Your task to perform on an android device: Go to Yahoo.com Image 0: 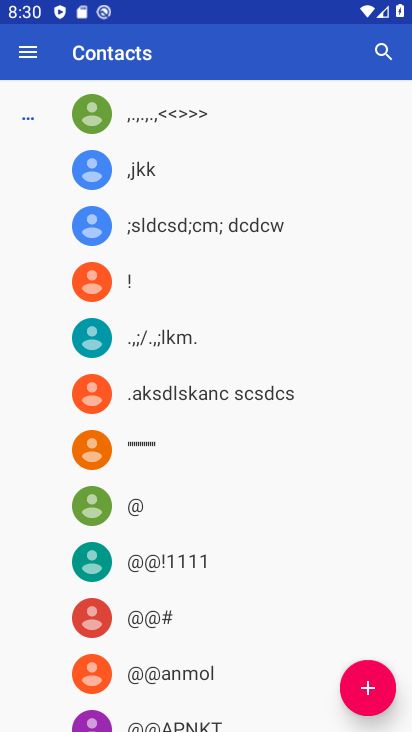
Step 0: press home button
Your task to perform on an android device: Go to Yahoo.com Image 1: 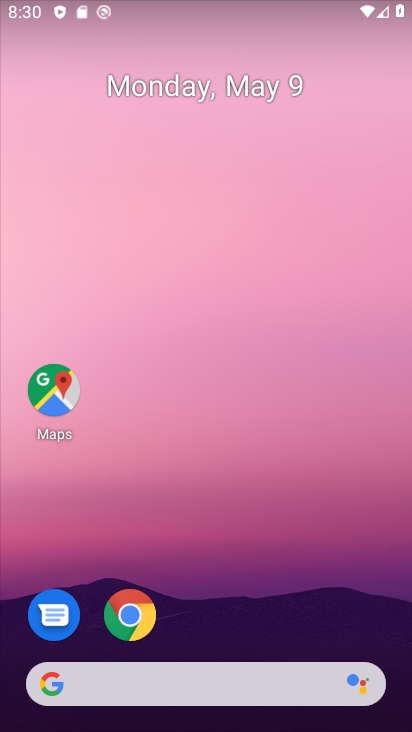
Step 1: click (150, 613)
Your task to perform on an android device: Go to Yahoo.com Image 2: 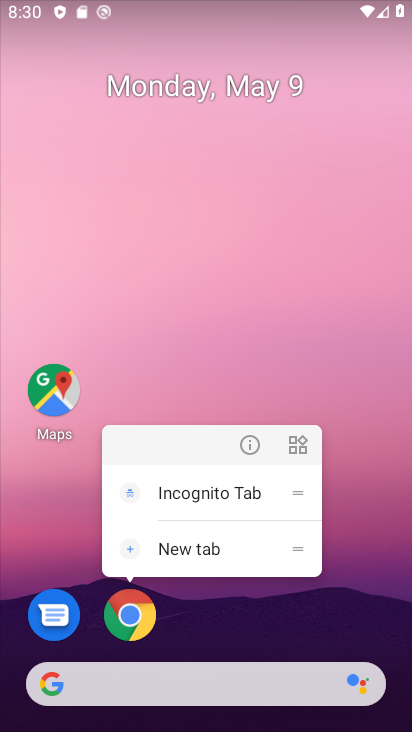
Step 2: click (129, 623)
Your task to perform on an android device: Go to Yahoo.com Image 3: 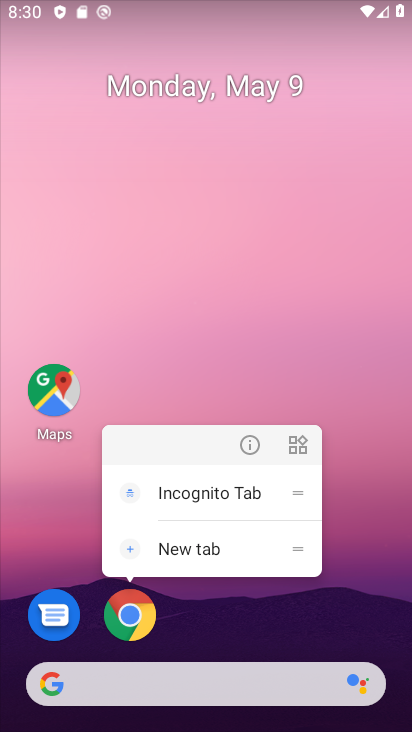
Step 3: click (119, 612)
Your task to perform on an android device: Go to Yahoo.com Image 4: 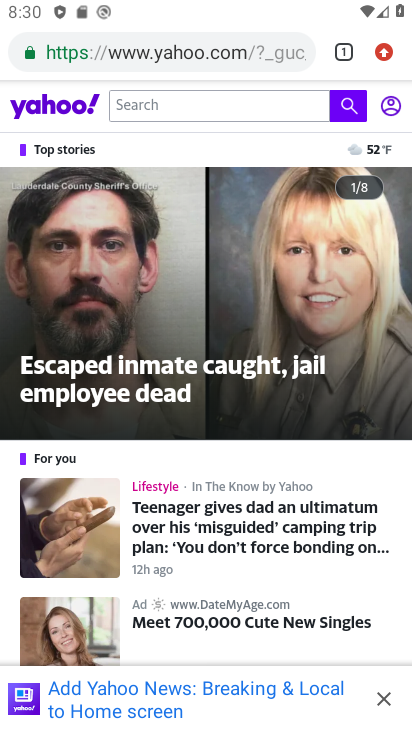
Step 4: task complete